Your task to perform on an android device: change timer sound Image 0: 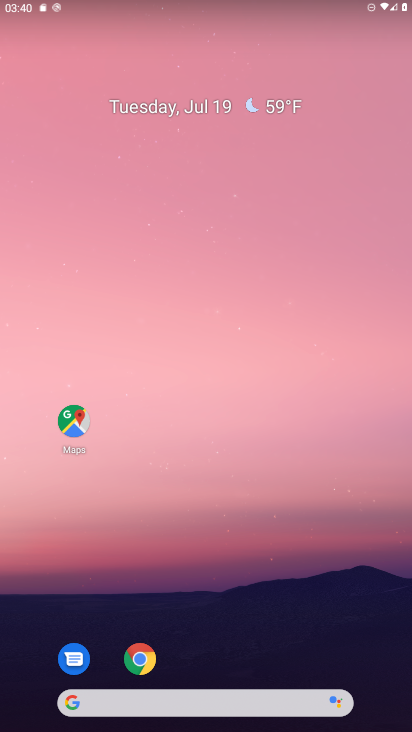
Step 0: drag from (221, 705) to (220, 118)
Your task to perform on an android device: change timer sound Image 1: 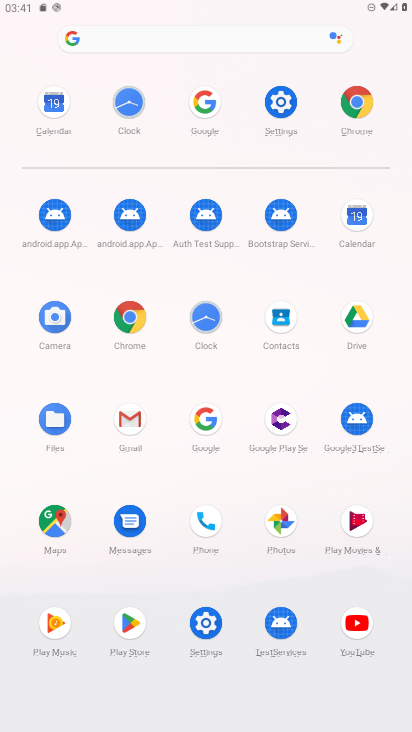
Step 1: click (129, 101)
Your task to perform on an android device: change timer sound Image 2: 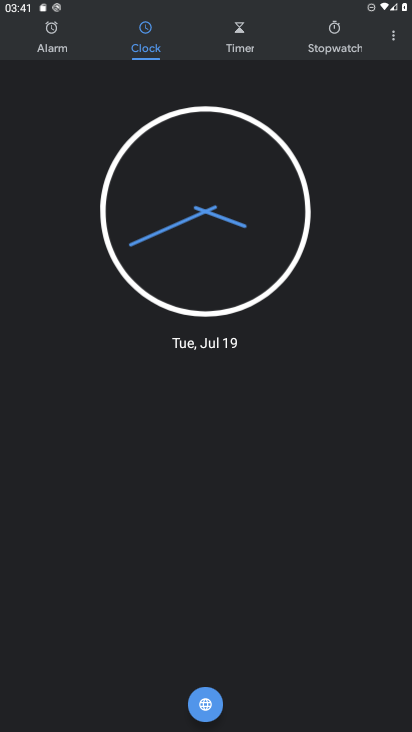
Step 2: click (395, 38)
Your task to perform on an android device: change timer sound Image 3: 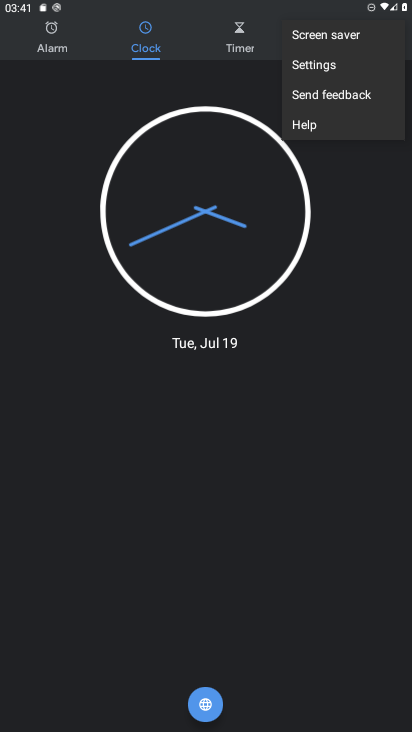
Step 3: click (328, 67)
Your task to perform on an android device: change timer sound Image 4: 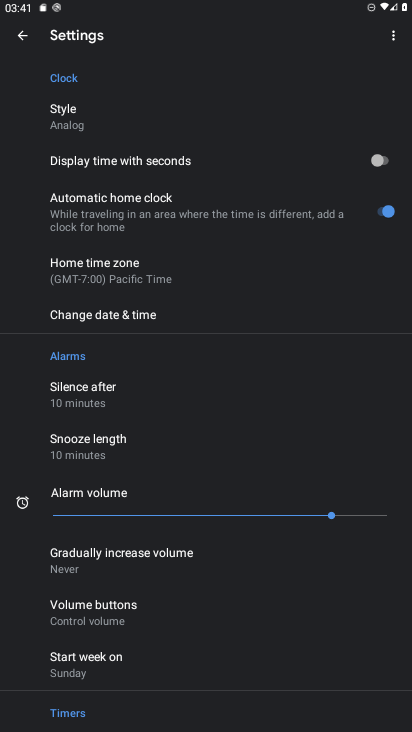
Step 4: drag from (123, 576) to (167, 383)
Your task to perform on an android device: change timer sound Image 5: 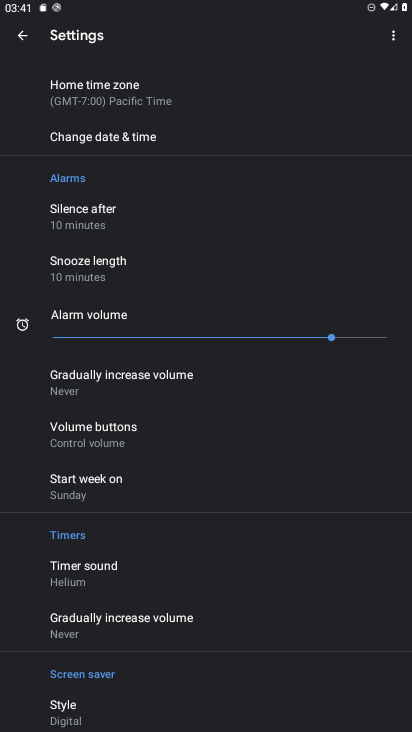
Step 5: click (119, 570)
Your task to perform on an android device: change timer sound Image 6: 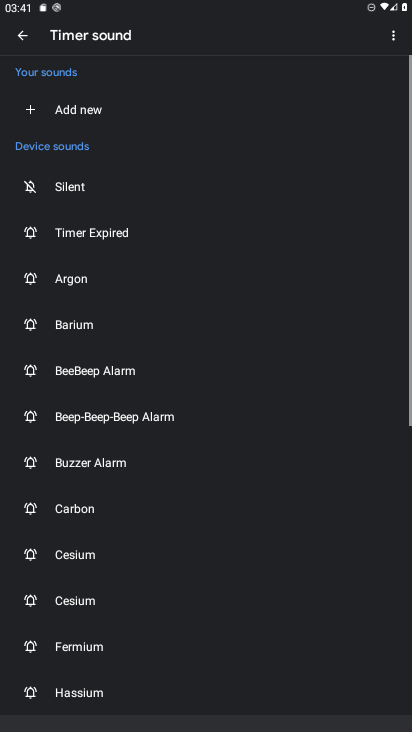
Step 6: drag from (108, 622) to (165, 265)
Your task to perform on an android device: change timer sound Image 7: 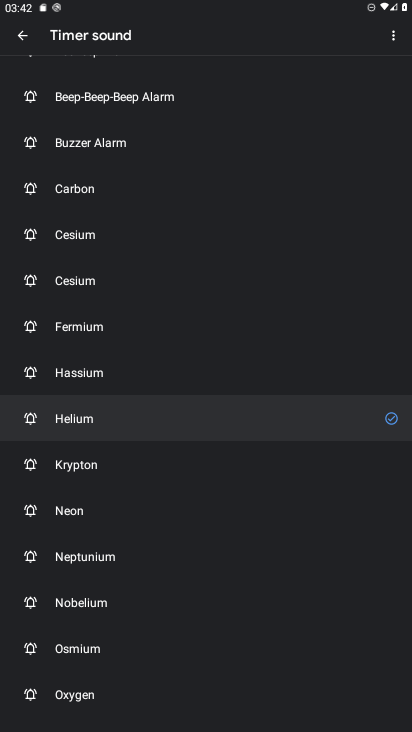
Step 7: click (83, 469)
Your task to perform on an android device: change timer sound Image 8: 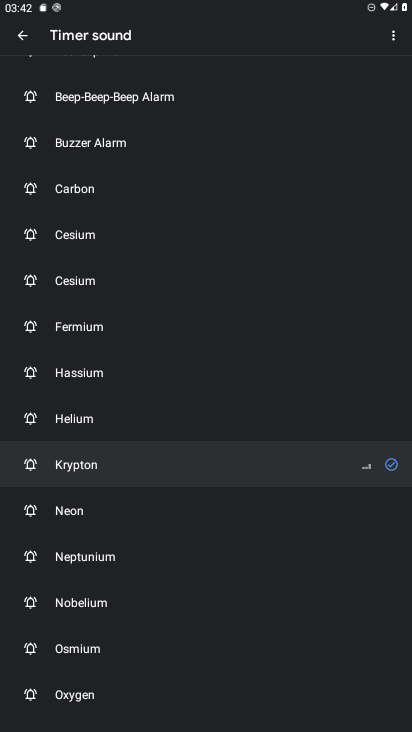
Step 8: task complete